Your task to perform on an android device: open a new tab in the chrome app Image 0: 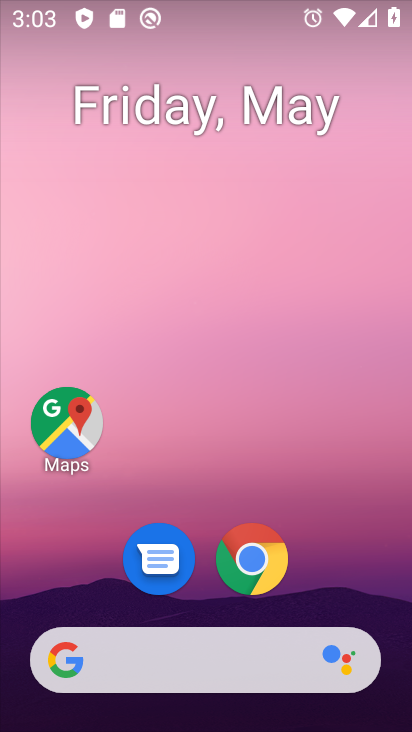
Step 0: drag from (383, 603) to (375, 434)
Your task to perform on an android device: open a new tab in the chrome app Image 1: 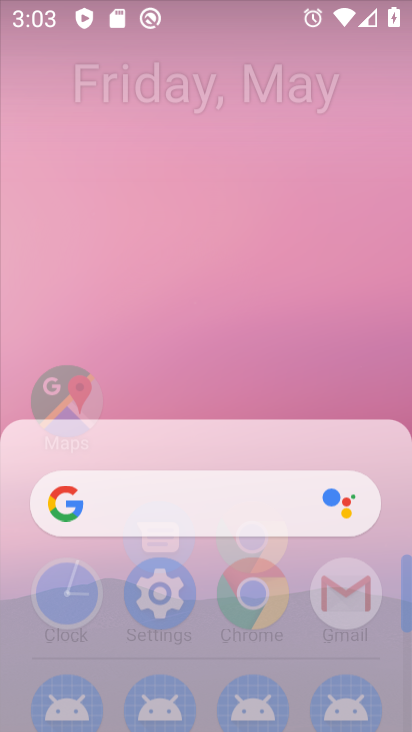
Step 1: click (374, 432)
Your task to perform on an android device: open a new tab in the chrome app Image 2: 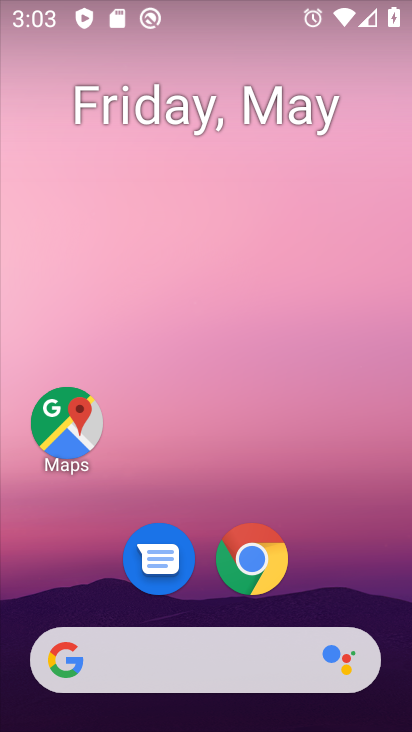
Step 2: click (259, 580)
Your task to perform on an android device: open a new tab in the chrome app Image 3: 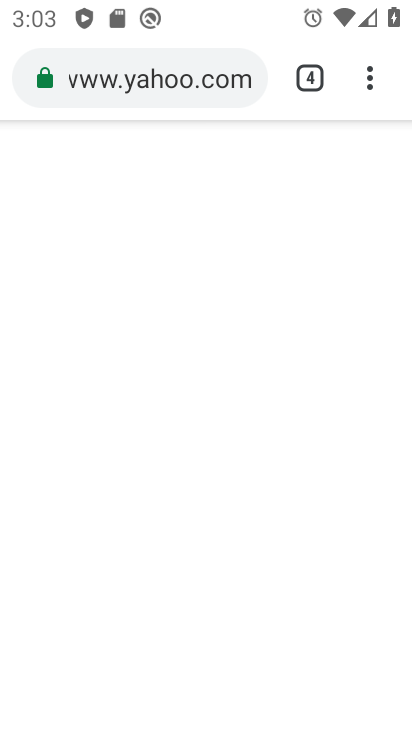
Step 3: click (320, 89)
Your task to perform on an android device: open a new tab in the chrome app Image 4: 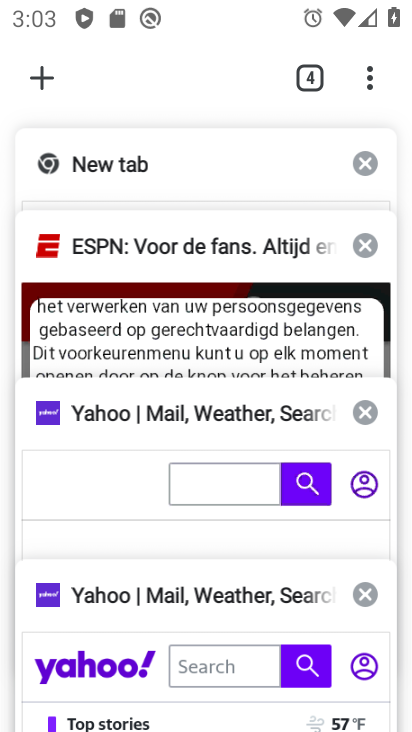
Step 4: click (38, 67)
Your task to perform on an android device: open a new tab in the chrome app Image 5: 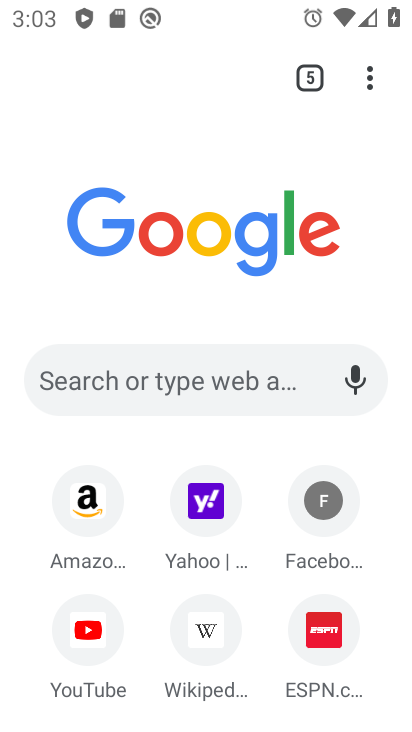
Step 5: task complete